Your task to perform on an android device: Go to eBay Image 0: 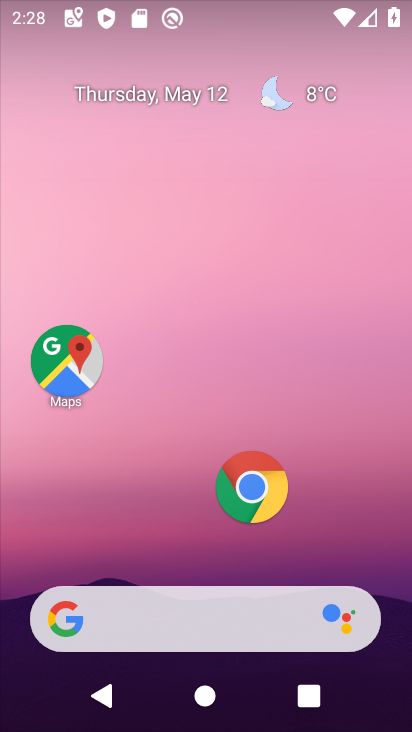
Step 0: click (182, 632)
Your task to perform on an android device: Go to eBay Image 1: 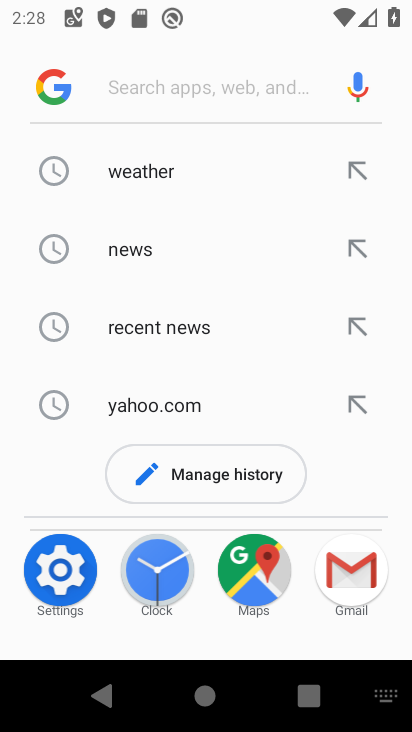
Step 1: type "eBay"
Your task to perform on an android device: Go to eBay Image 2: 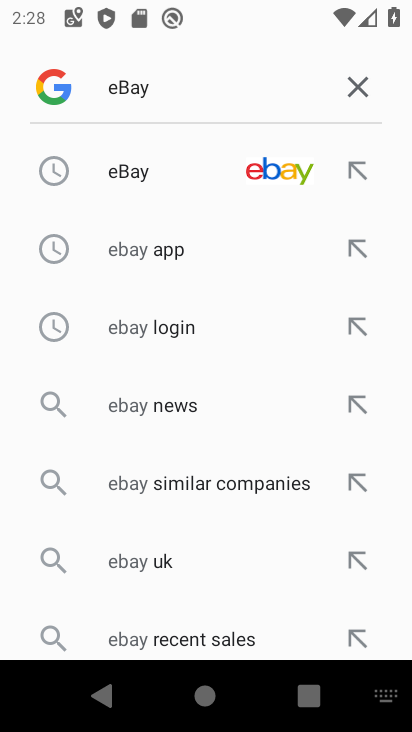
Step 2: click (234, 175)
Your task to perform on an android device: Go to eBay Image 3: 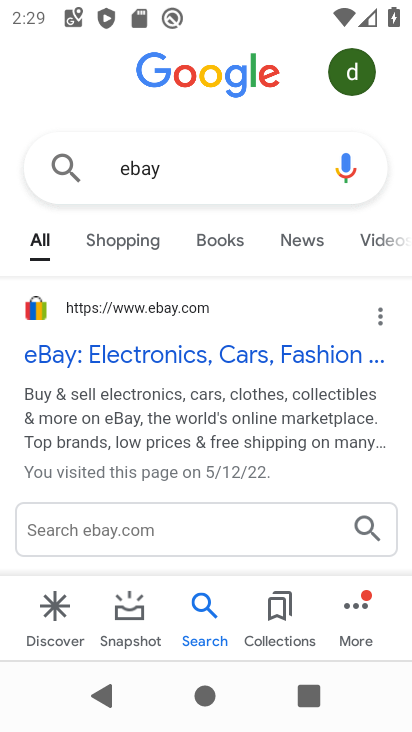
Step 3: click (213, 358)
Your task to perform on an android device: Go to eBay Image 4: 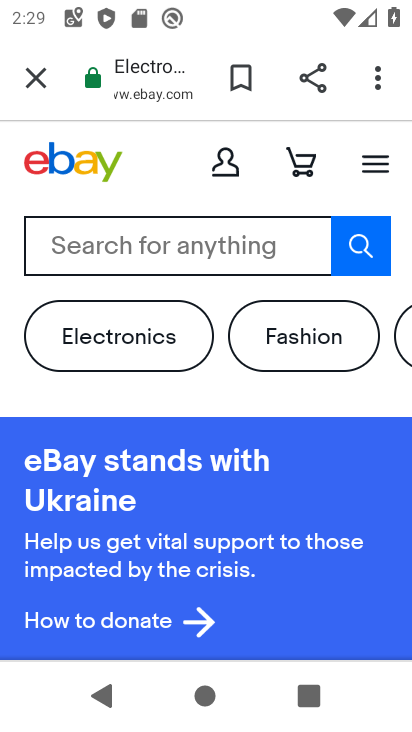
Step 4: task complete